Your task to perform on an android device: turn on data saver in the chrome app Image 0: 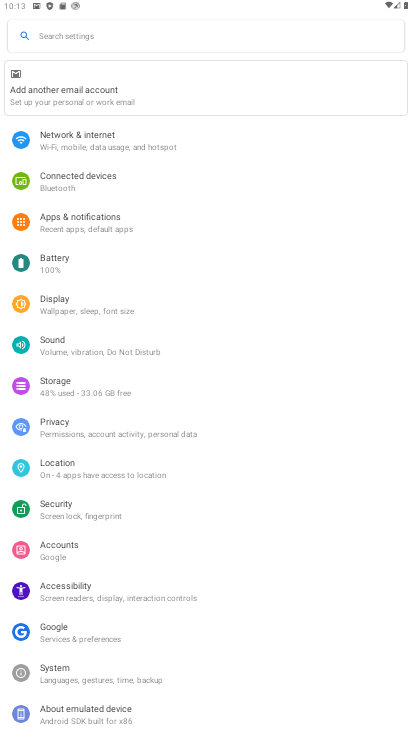
Step 0: press home button
Your task to perform on an android device: turn on data saver in the chrome app Image 1: 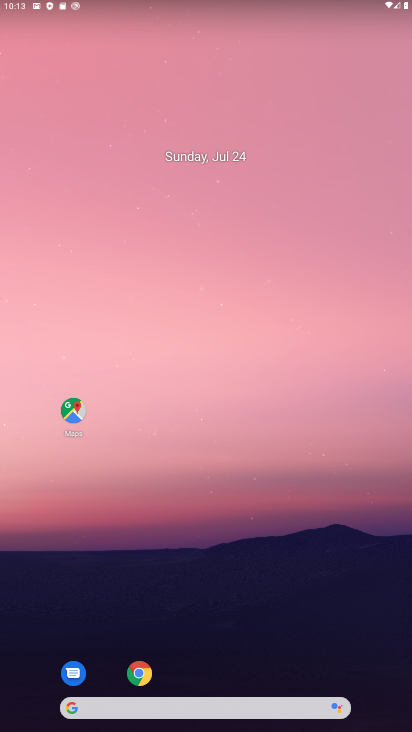
Step 1: click (144, 676)
Your task to perform on an android device: turn on data saver in the chrome app Image 2: 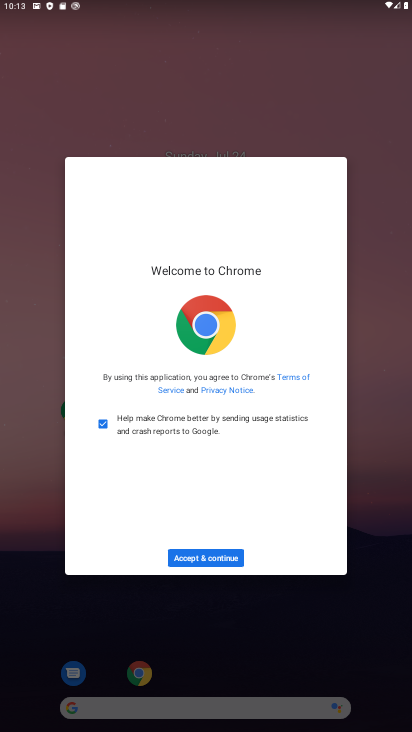
Step 2: click (219, 559)
Your task to perform on an android device: turn on data saver in the chrome app Image 3: 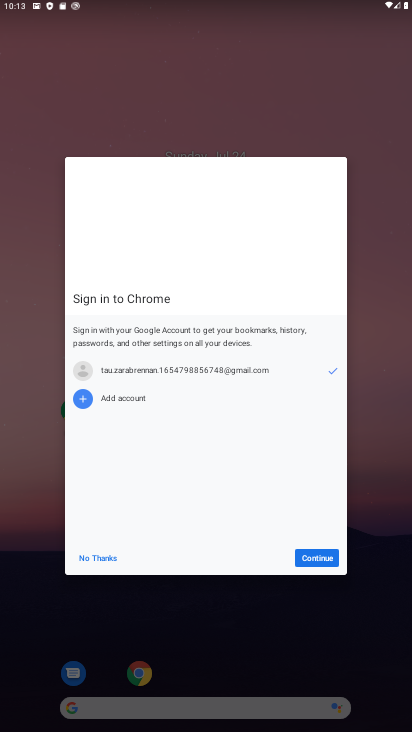
Step 3: click (329, 553)
Your task to perform on an android device: turn on data saver in the chrome app Image 4: 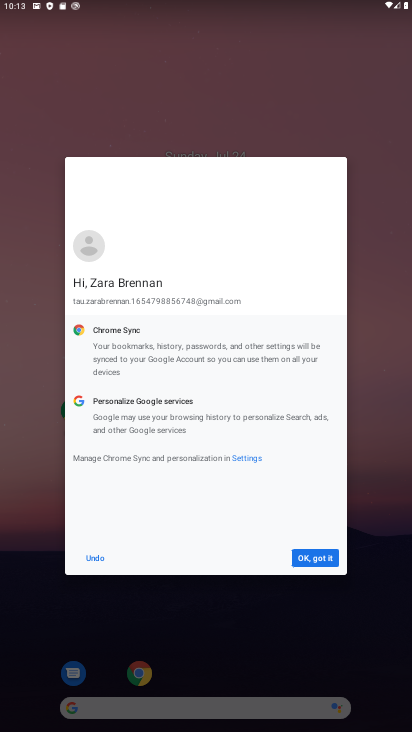
Step 4: click (329, 553)
Your task to perform on an android device: turn on data saver in the chrome app Image 5: 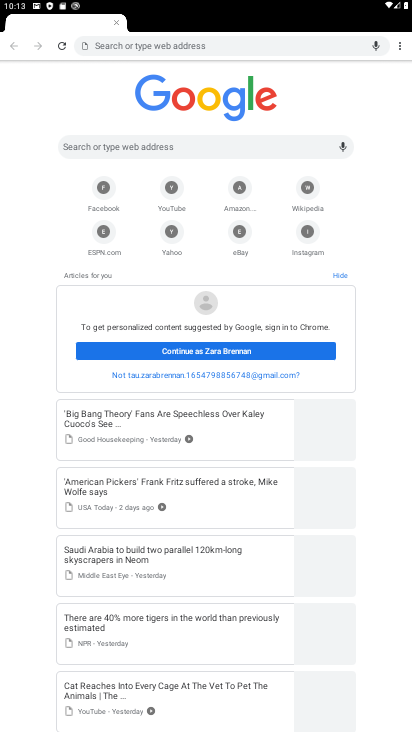
Step 5: click (403, 54)
Your task to perform on an android device: turn on data saver in the chrome app Image 6: 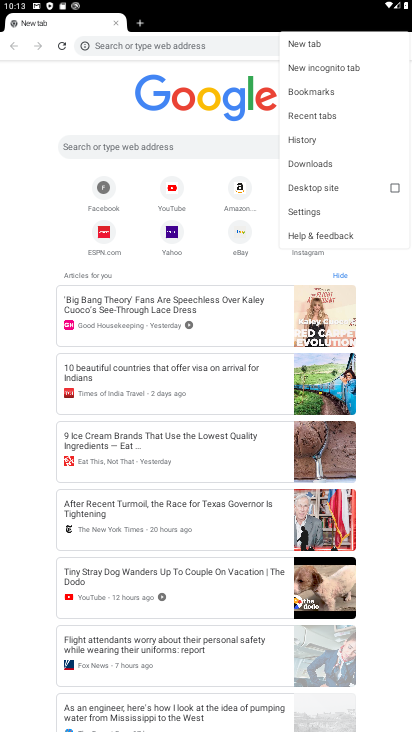
Step 6: drag from (332, 141) to (334, 212)
Your task to perform on an android device: turn on data saver in the chrome app Image 7: 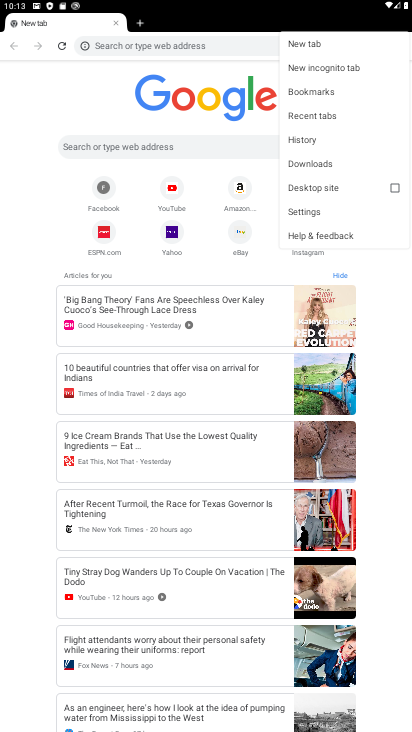
Step 7: click (309, 211)
Your task to perform on an android device: turn on data saver in the chrome app Image 8: 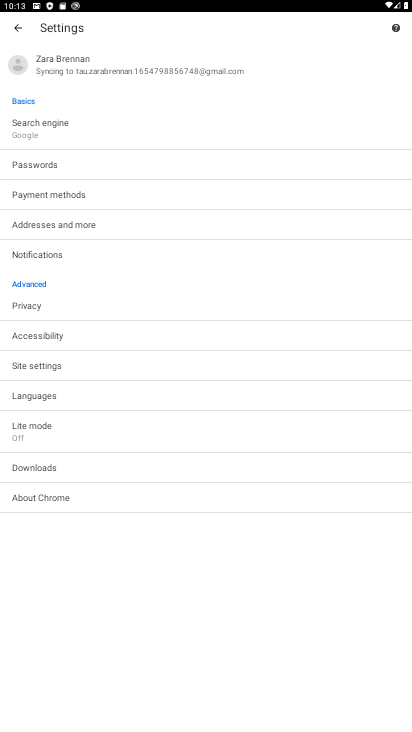
Step 8: click (149, 437)
Your task to perform on an android device: turn on data saver in the chrome app Image 9: 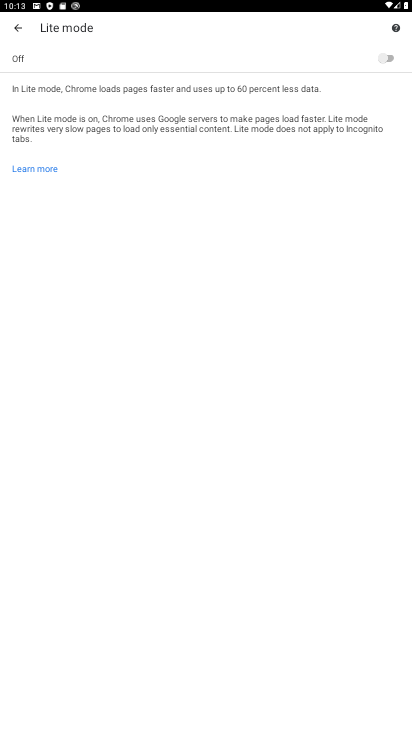
Step 9: click (395, 66)
Your task to perform on an android device: turn on data saver in the chrome app Image 10: 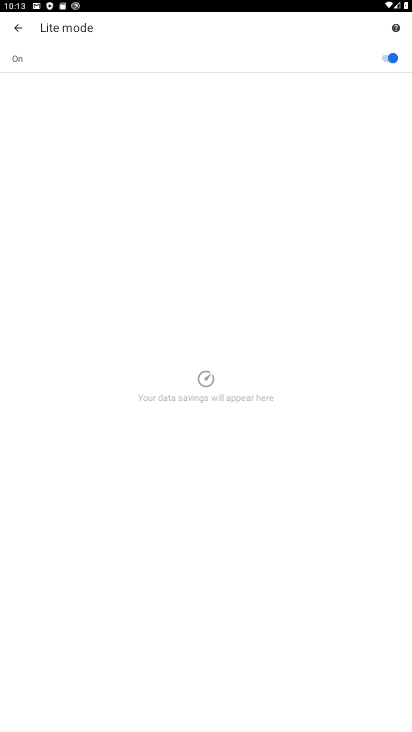
Step 10: task complete